Your task to perform on an android device: Go to Google Image 0: 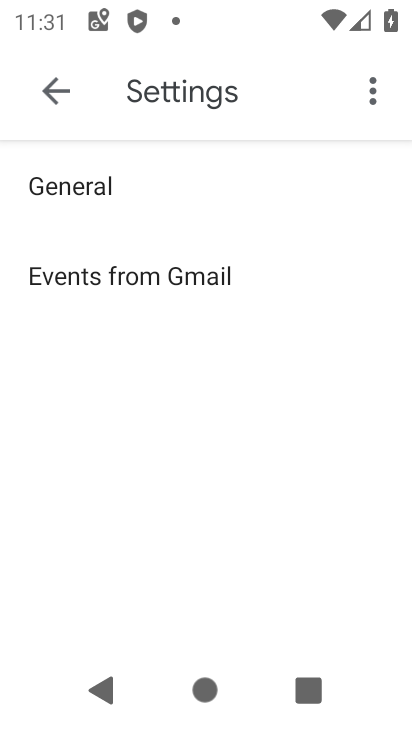
Step 0: press home button
Your task to perform on an android device: Go to Google Image 1: 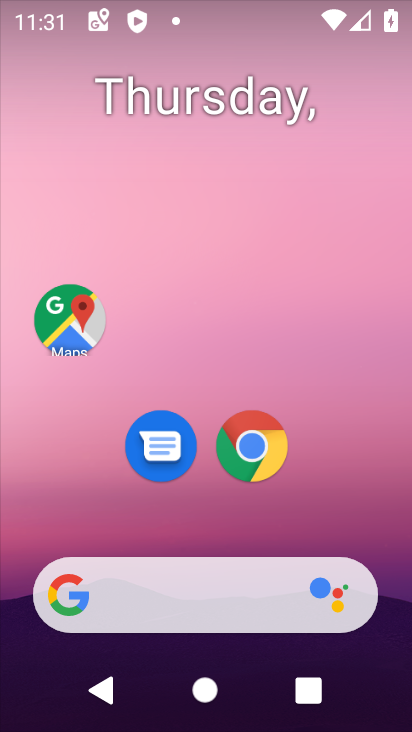
Step 1: drag from (323, 492) to (329, 91)
Your task to perform on an android device: Go to Google Image 2: 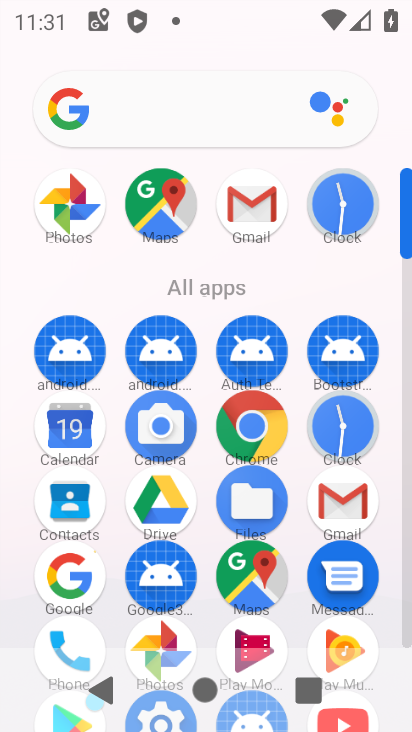
Step 2: drag from (407, 597) to (373, 268)
Your task to perform on an android device: Go to Google Image 3: 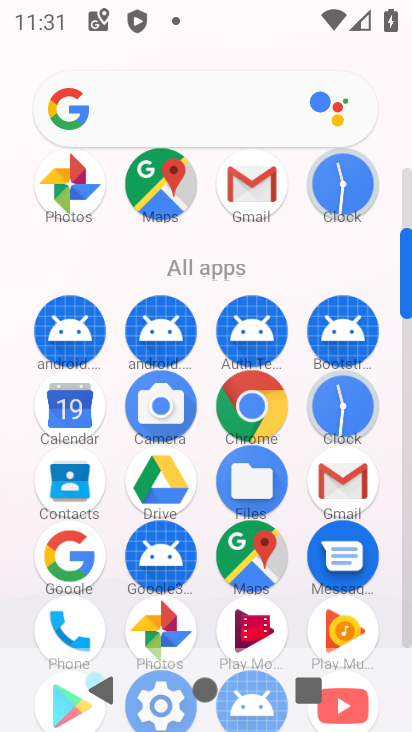
Step 3: click (78, 555)
Your task to perform on an android device: Go to Google Image 4: 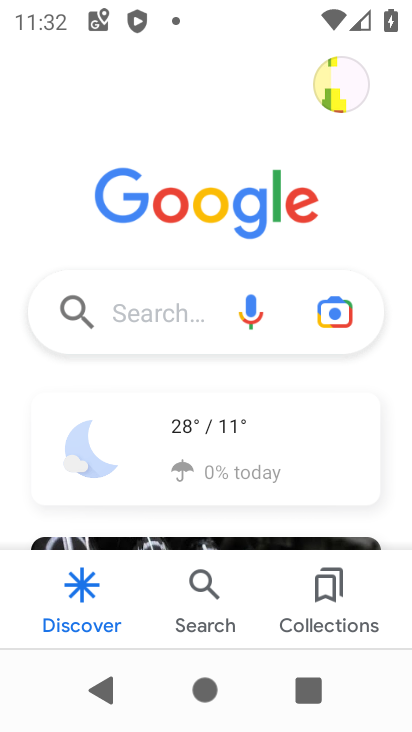
Step 4: task complete